Your task to perform on an android device: turn on airplane mode Image 0: 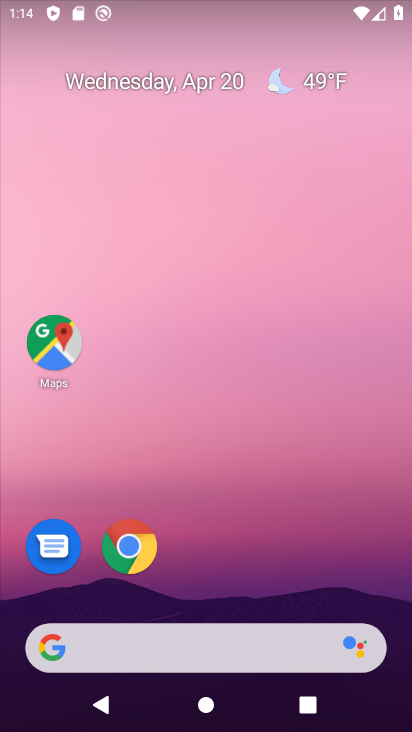
Step 0: drag from (225, 19) to (276, 544)
Your task to perform on an android device: turn on airplane mode Image 1: 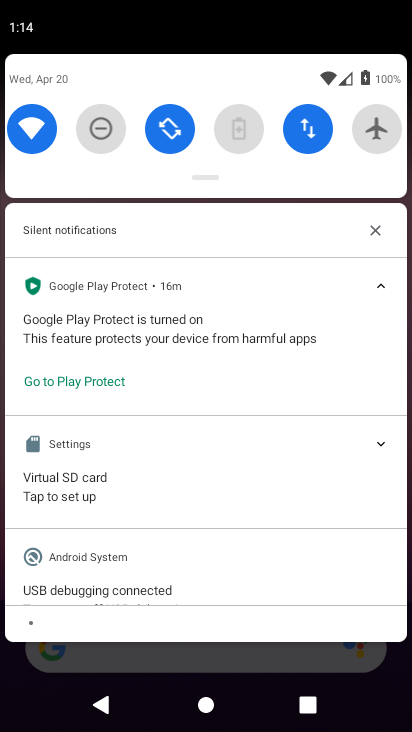
Step 1: drag from (205, 165) to (191, 607)
Your task to perform on an android device: turn on airplane mode Image 2: 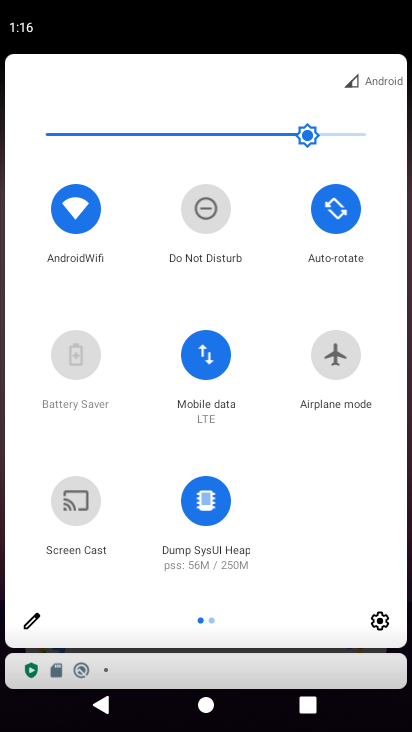
Step 2: click (328, 349)
Your task to perform on an android device: turn on airplane mode Image 3: 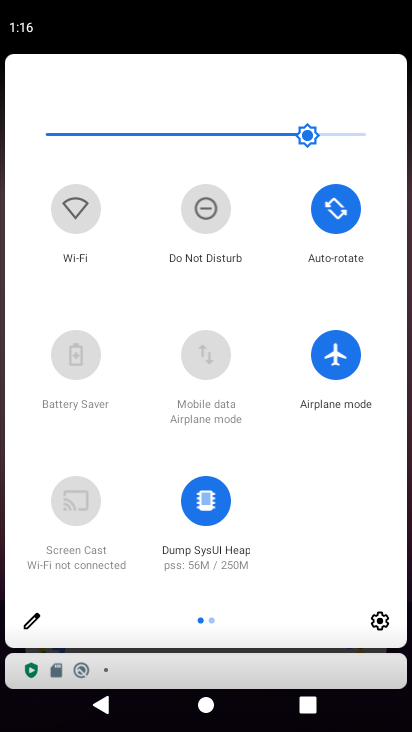
Step 3: task complete